Your task to perform on an android device: Search for the best gaming mouse on Best Buy. Image 0: 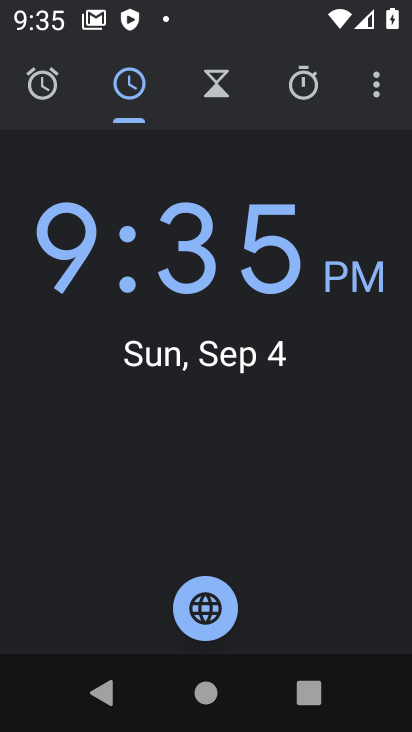
Step 0: press home button
Your task to perform on an android device: Search for the best gaming mouse on Best Buy. Image 1: 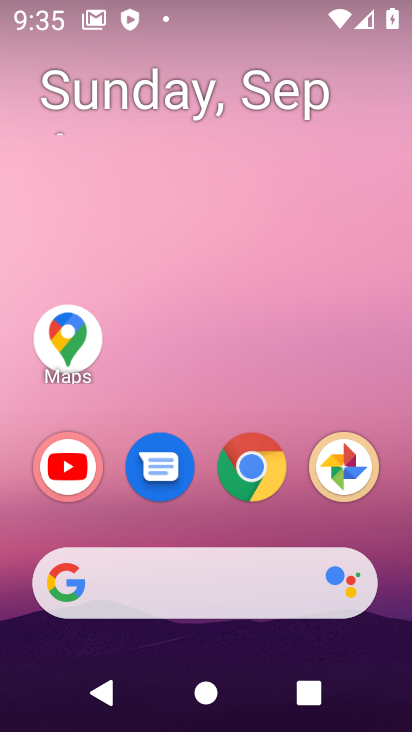
Step 1: click (252, 442)
Your task to perform on an android device: Search for the best gaming mouse on Best Buy. Image 2: 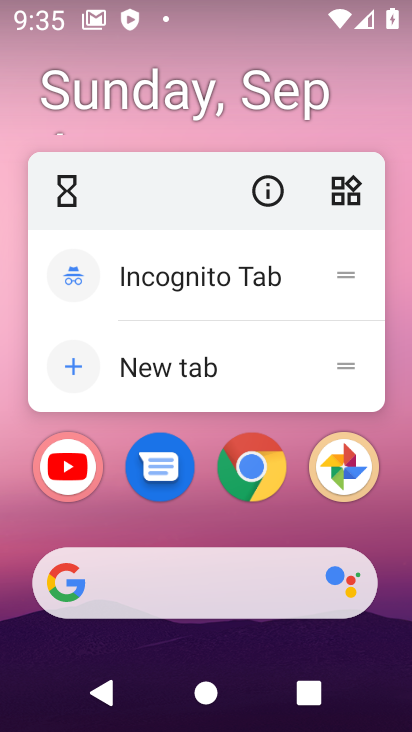
Step 2: click (256, 441)
Your task to perform on an android device: Search for the best gaming mouse on Best Buy. Image 3: 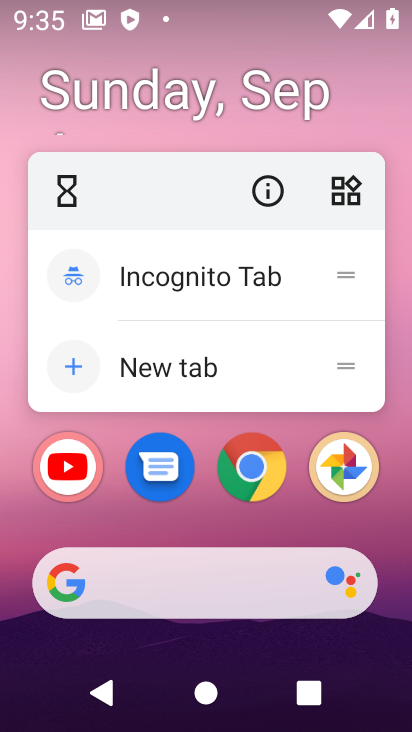
Step 3: click (240, 478)
Your task to perform on an android device: Search for the best gaming mouse on Best Buy. Image 4: 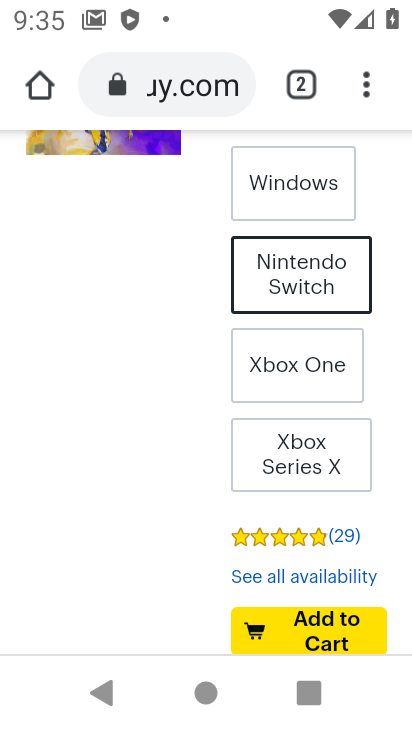
Step 4: click (161, 87)
Your task to perform on an android device: Search for the best gaming mouse on Best Buy. Image 5: 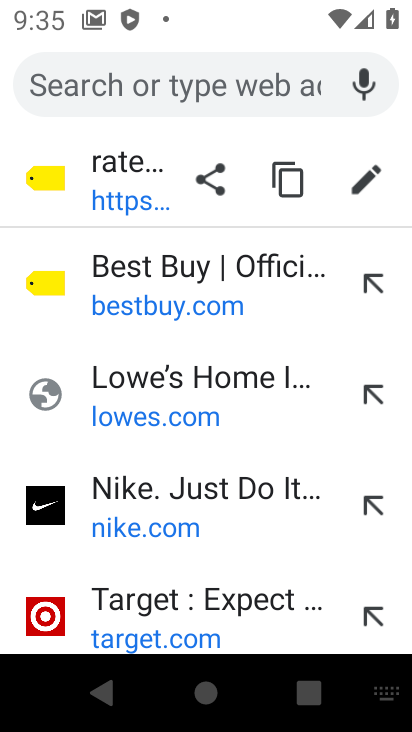
Step 5: type "best buy"
Your task to perform on an android device: Search for the best gaming mouse on Best Buy. Image 6: 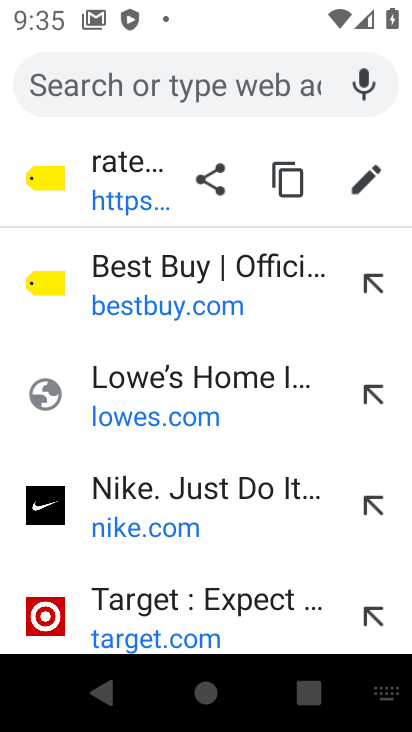
Step 6: click (189, 306)
Your task to perform on an android device: Search for the best gaming mouse on Best Buy. Image 7: 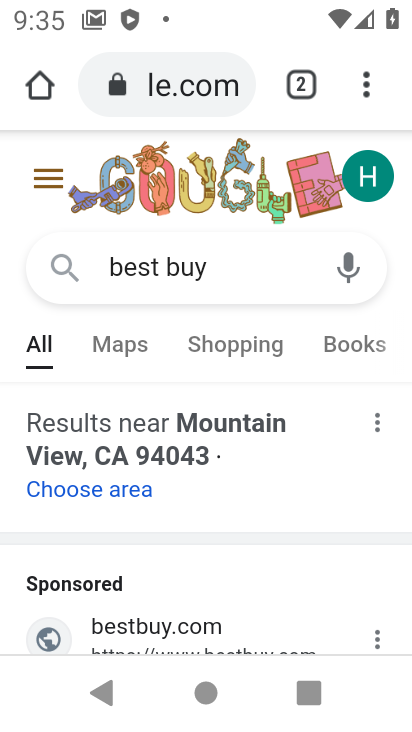
Step 7: drag from (240, 376) to (217, 143)
Your task to perform on an android device: Search for the best gaming mouse on Best Buy. Image 8: 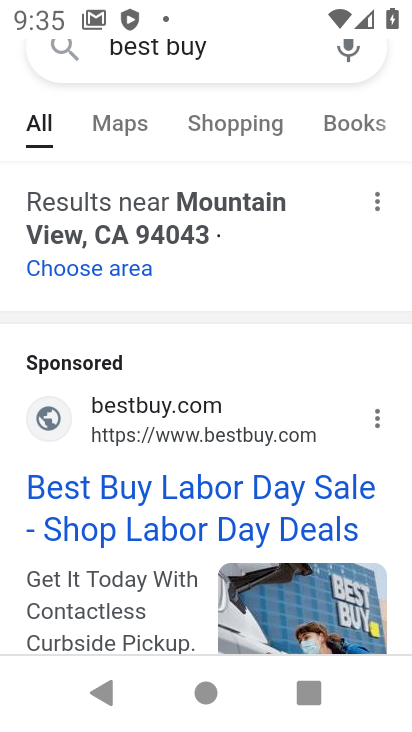
Step 8: drag from (411, 550) to (400, 243)
Your task to perform on an android device: Search for the best gaming mouse on Best Buy. Image 9: 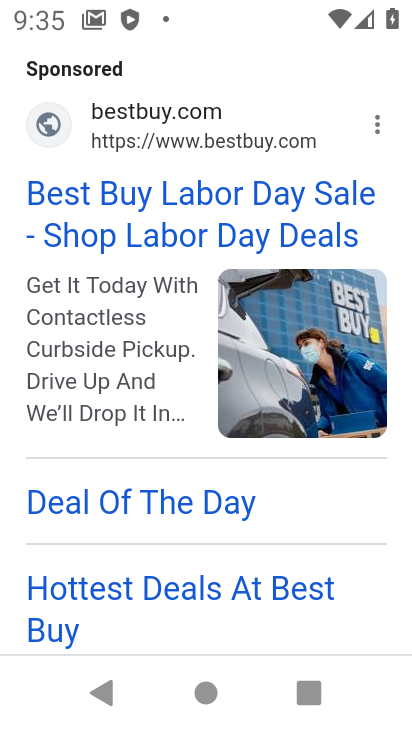
Step 9: drag from (352, 555) to (344, 90)
Your task to perform on an android device: Search for the best gaming mouse on Best Buy. Image 10: 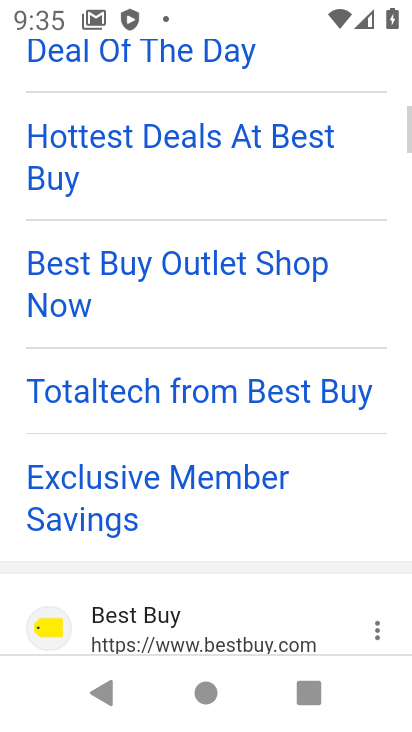
Step 10: drag from (378, 572) to (344, 177)
Your task to perform on an android device: Search for the best gaming mouse on Best Buy. Image 11: 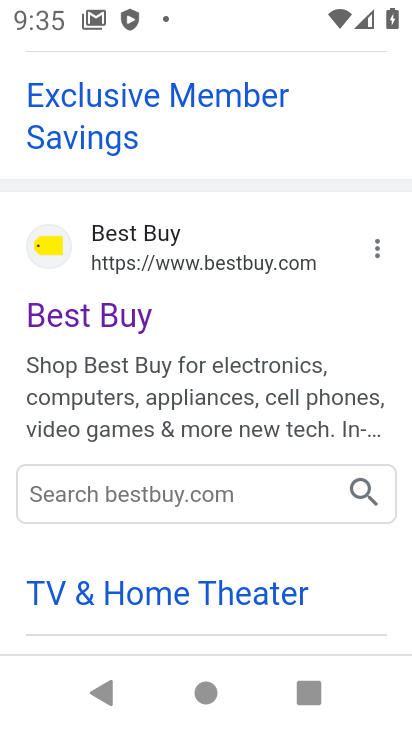
Step 11: click (87, 320)
Your task to perform on an android device: Search for the best gaming mouse on Best Buy. Image 12: 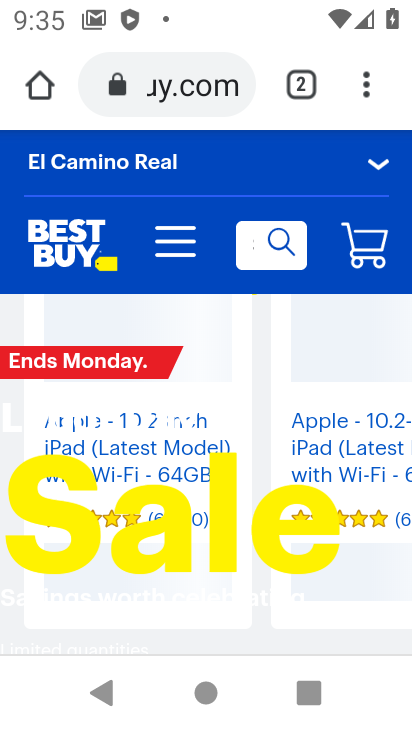
Step 12: click (281, 239)
Your task to perform on an android device: Search for the best gaming mouse on Best Buy. Image 13: 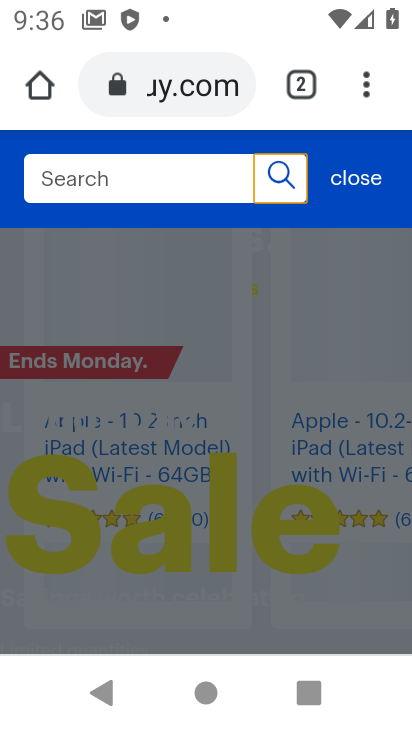
Step 13: click (57, 182)
Your task to perform on an android device: Search for the best gaming mouse on Best Buy. Image 14: 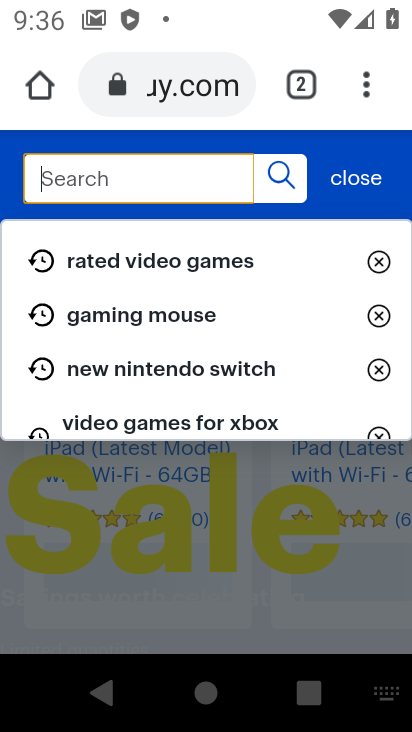
Step 14: type "gaming mouse"
Your task to perform on an android device: Search for the best gaming mouse on Best Buy. Image 15: 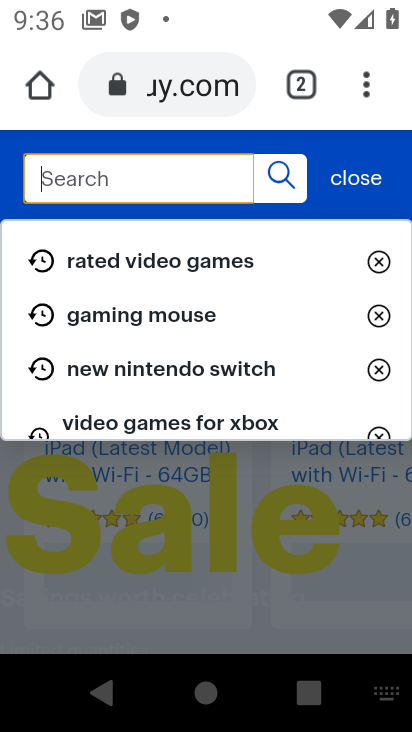
Step 15: click (207, 312)
Your task to perform on an android device: Search for the best gaming mouse on Best Buy. Image 16: 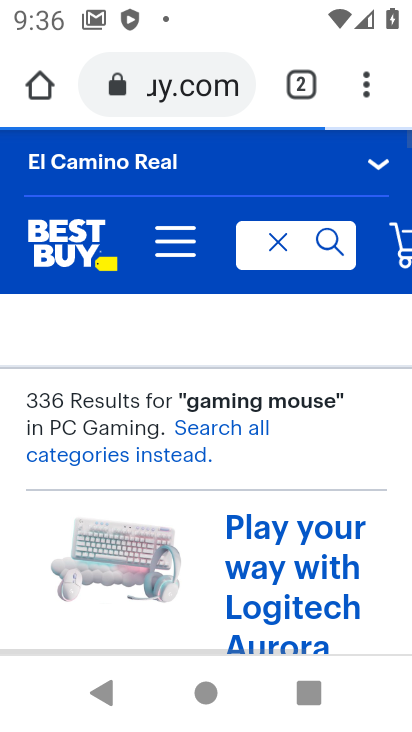
Step 16: drag from (387, 556) to (312, 228)
Your task to perform on an android device: Search for the best gaming mouse on Best Buy. Image 17: 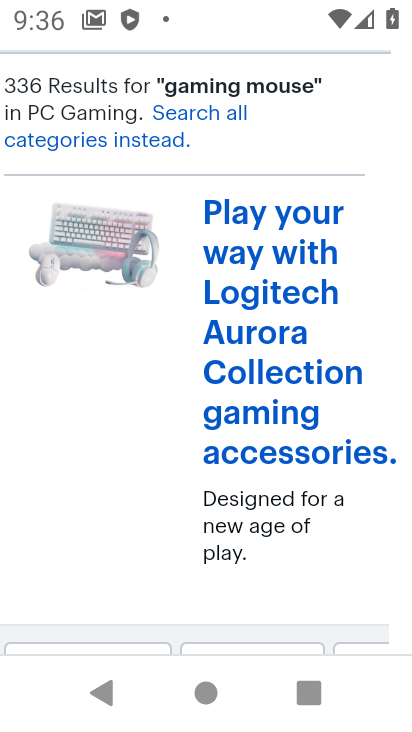
Step 17: drag from (341, 561) to (295, 219)
Your task to perform on an android device: Search for the best gaming mouse on Best Buy. Image 18: 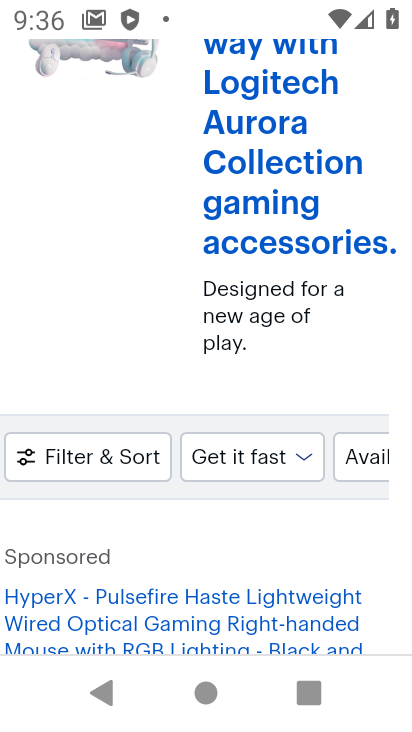
Step 18: click (64, 452)
Your task to perform on an android device: Search for the best gaming mouse on Best Buy. Image 19: 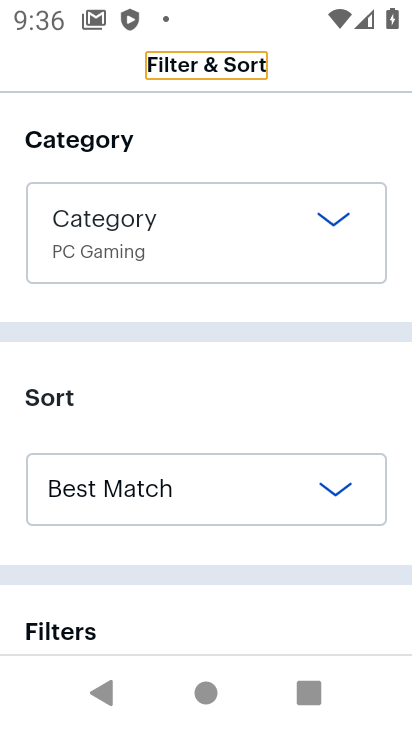
Step 19: drag from (247, 532) to (250, 247)
Your task to perform on an android device: Search for the best gaming mouse on Best Buy. Image 20: 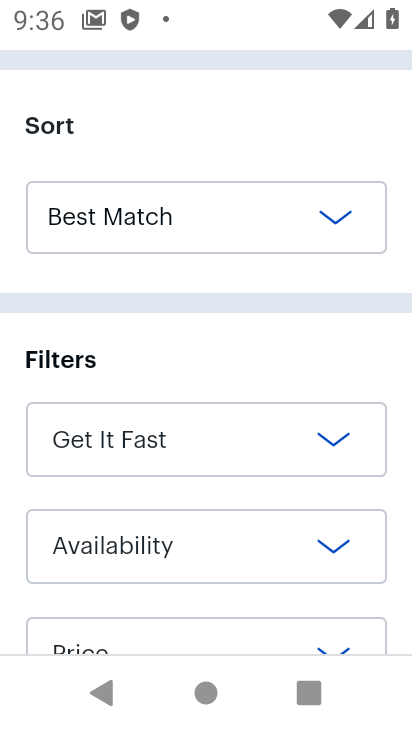
Step 20: drag from (229, 527) to (210, 260)
Your task to perform on an android device: Search for the best gaming mouse on Best Buy. Image 21: 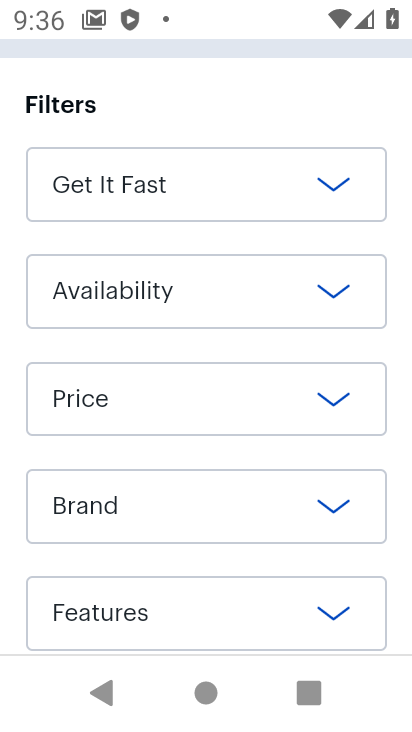
Step 21: click (319, 496)
Your task to perform on an android device: Search for the best gaming mouse on Best Buy. Image 22: 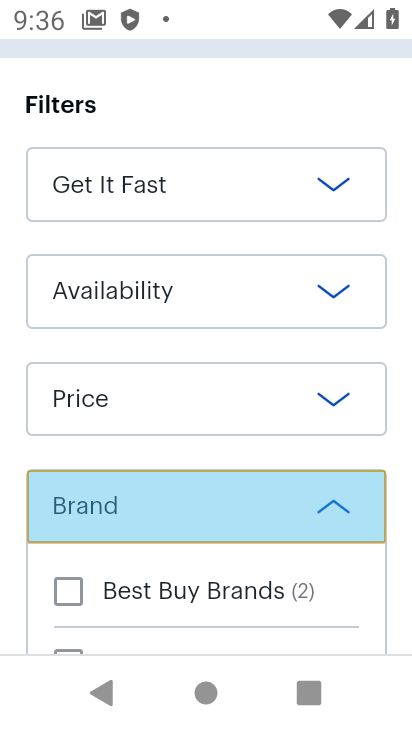
Step 22: click (64, 593)
Your task to perform on an android device: Search for the best gaming mouse on Best Buy. Image 23: 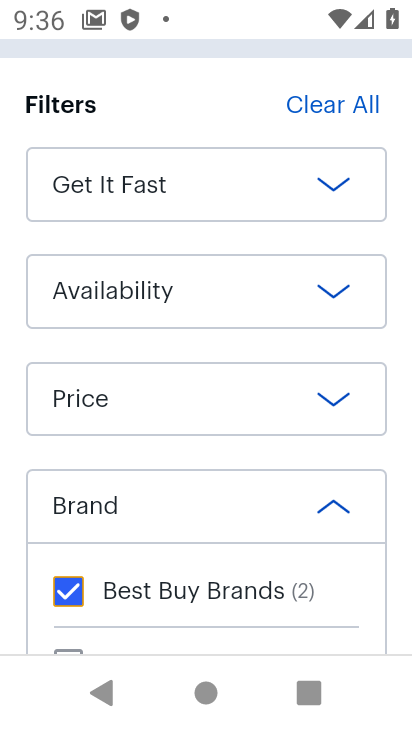
Step 23: drag from (369, 569) to (394, 185)
Your task to perform on an android device: Search for the best gaming mouse on Best Buy. Image 24: 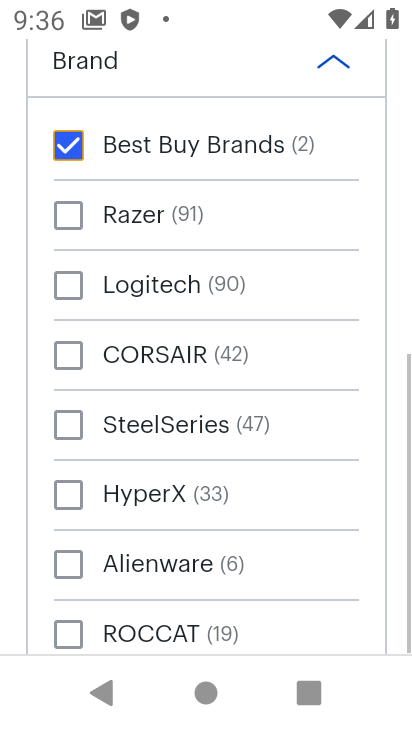
Step 24: drag from (369, 567) to (392, 158)
Your task to perform on an android device: Search for the best gaming mouse on Best Buy. Image 25: 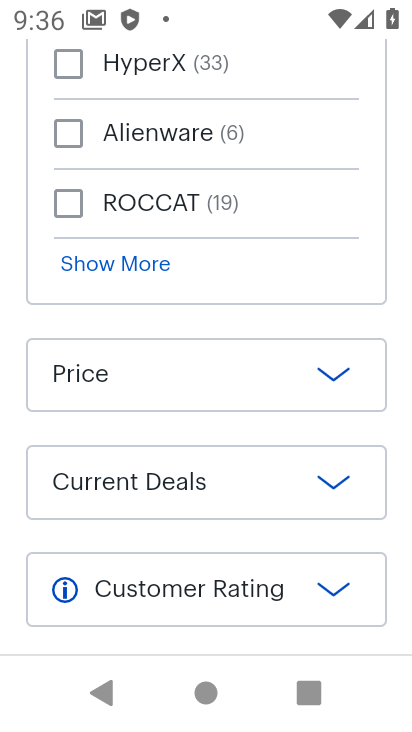
Step 25: click (326, 598)
Your task to perform on an android device: Search for the best gaming mouse on Best Buy. Image 26: 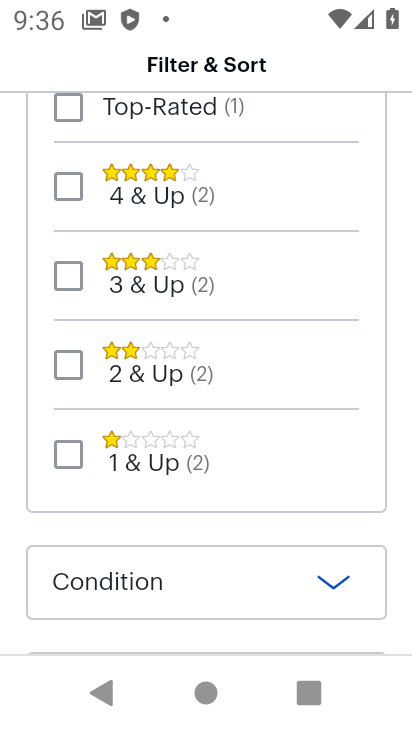
Step 26: click (68, 101)
Your task to perform on an android device: Search for the best gaming mouse on Best Buy. Image 27: 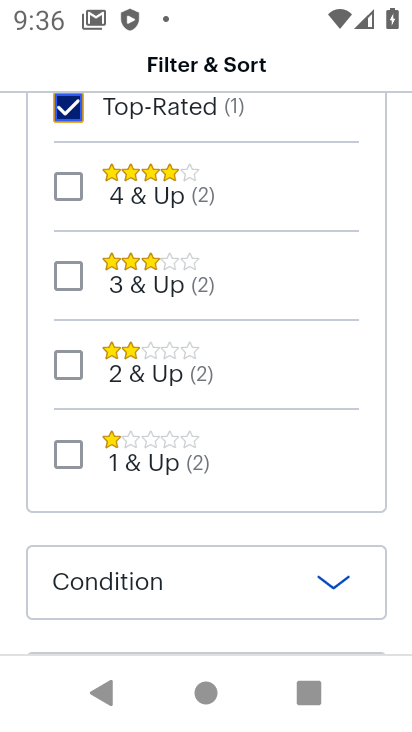
Step 27: drag from (355, 594) to (394, 100)
Your task to perform on an android device: Search for the best gaming mouse on Best Buy. Image 28: 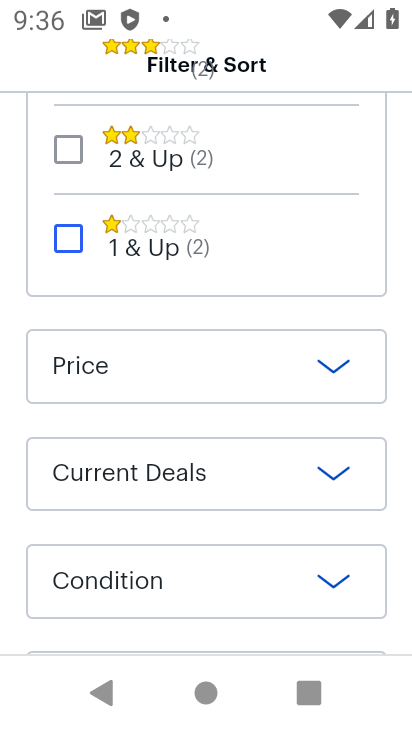
Step 28: drag from (387, 573) to (411, 296)
Your task to perform on an android device: Search for the best gaming mouse on Best Buy. Image 29: 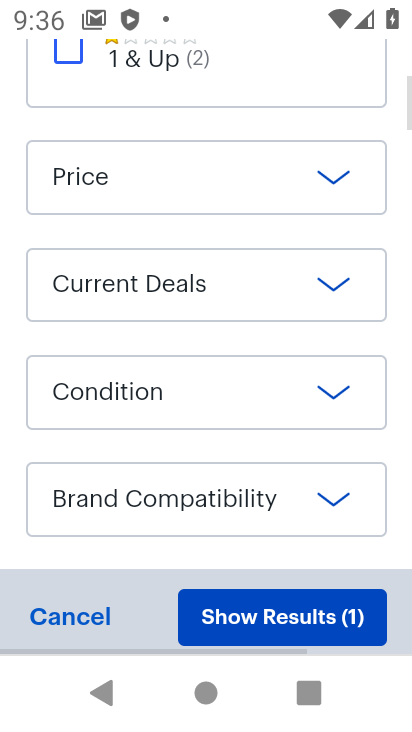
Step 29: click (215, 612)
Your task to perform on an android device: Search for the best gaming mouse on Best Buy. Image 30: 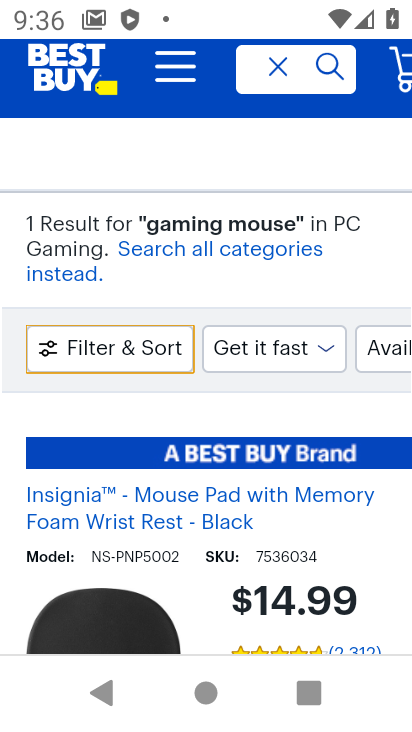
Step 30: drag from (354, 571) to (394, 322)
Your task to perform on an android device: Search for the best gaming mouse on Best Buy. Image 31: 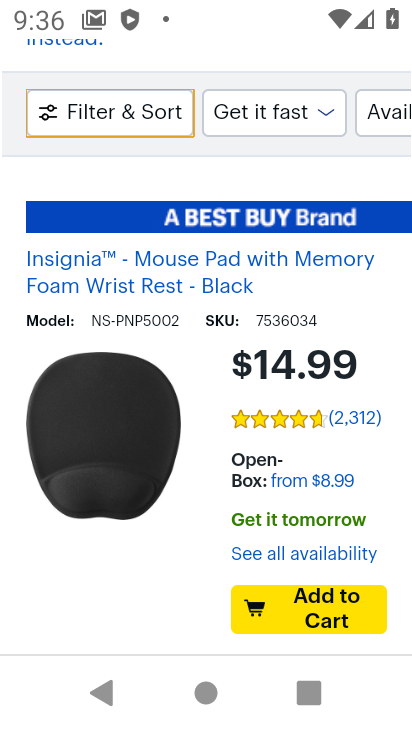
Step 31: drag from (148, 527) to (145, 237)
Your task to perform on an android device: Search for the best gaming mouse on Best Buy. Image 32: 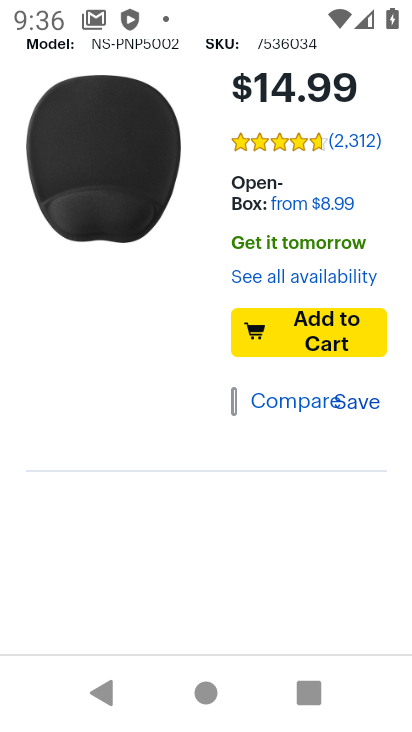
Step 32: drag from (188, 607) to (187, 286)
Your task to perform on an android device: Search for the best gaming mouse on Best Buy. Image 33: 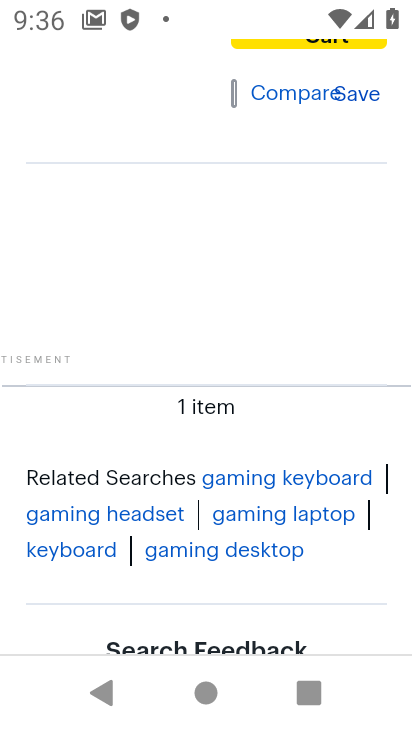
Step 33: drag from (299, 404) to (306, 222)
Your task to perform on an android device: Search for the best gaming mouse on Best Buy. Image 34: 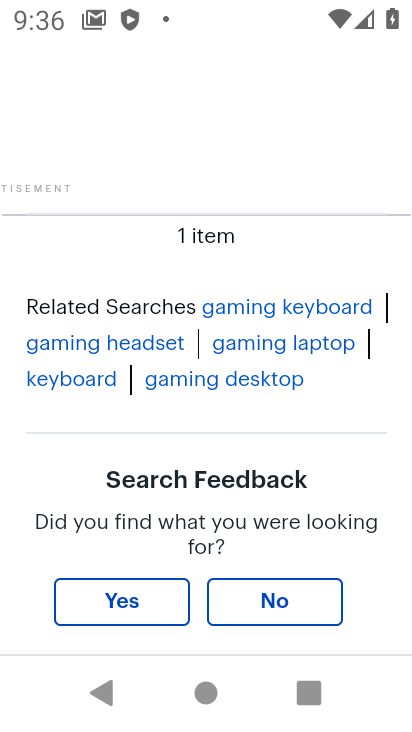
Step 34: drag from (383, 582) to (374, 209)
Your task to perform on an android device: Search for the best gaming mouse on Best Buy. Image 35: 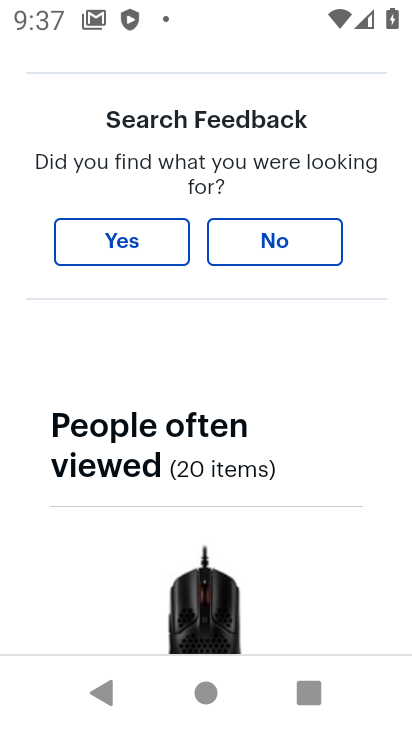
Step 35: drag from (346, 590) to (374, 113)
Your task to perform on an android device: Search for the best gaming mouse on Best Buy. Image 36: 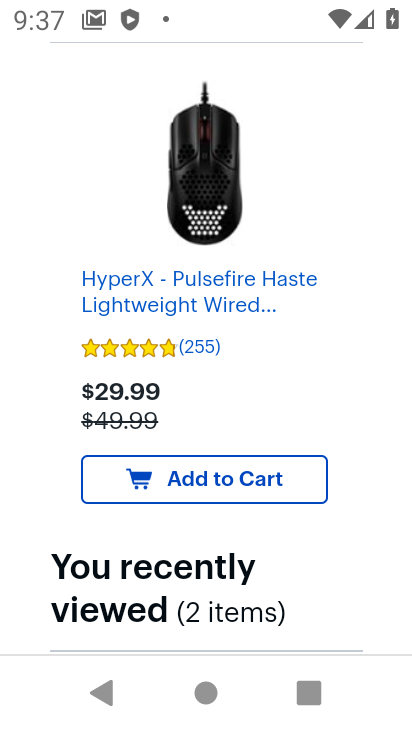
Step 36: drag from (289, 471) to (391, 163)
Your task to perform on an android device: Search for the best gaming mouse on Best Buy. Image 37: 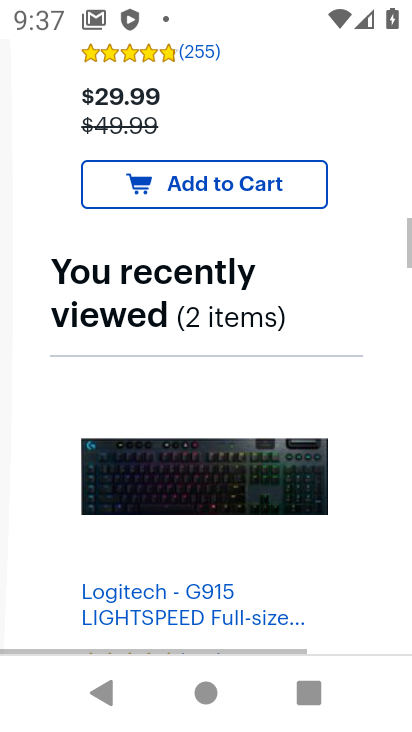
Step 37: drag from (374, 489) to (373, 109)
Your task to perform on an android device: Search for the best gaming mouse on Best Buy. Image 38: 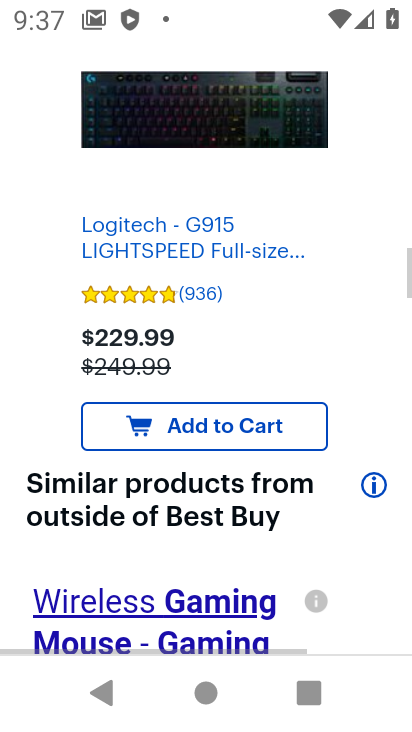
Step 38: drag from (294, 385) to (371, 97)
Your task to perform on an android device: Search for the best gaming mouse on Best Buy. Image 39: 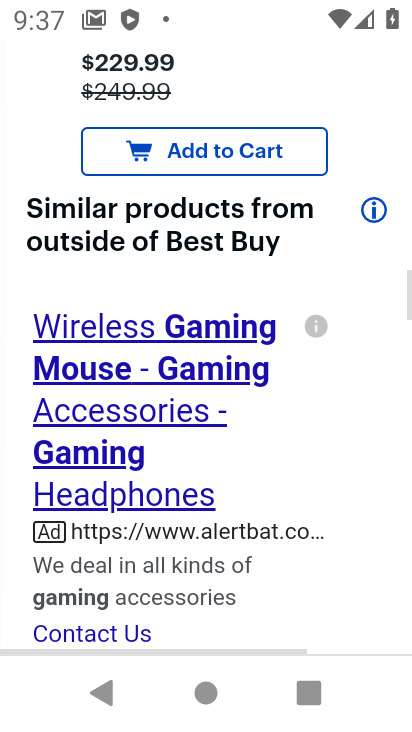
Step 39: drag from (302, 630) to (335, 208)
Your task to perform on an android device: Search for the best gaming mouse on Best Buy. Image 40: 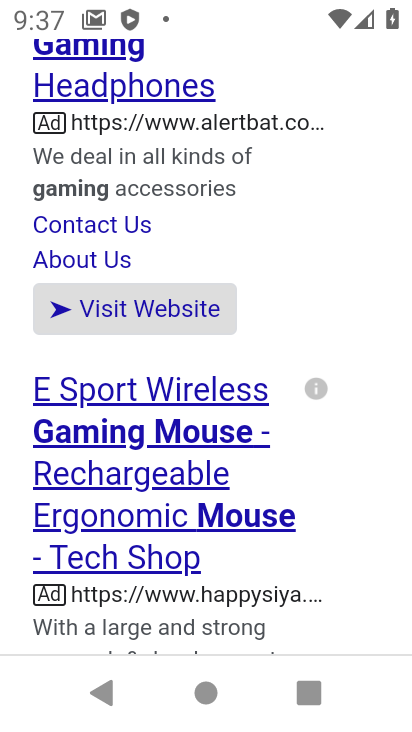
Step 40: drag from (300, 555) to (315, 35)
Your task to perform on an android device: Search for the best gaming mouse on Best Buy. Image 41: 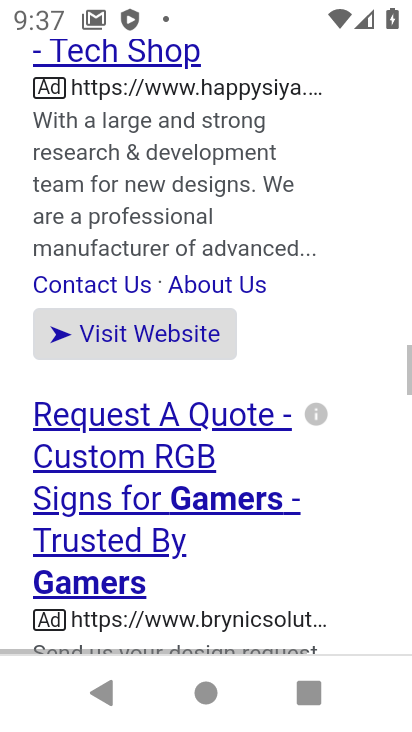
Step 41: drag from (329, 526) to (314, 93)
Your task to perform on an android device: Search for the best gaming mouse on Best Buy. Image 42: 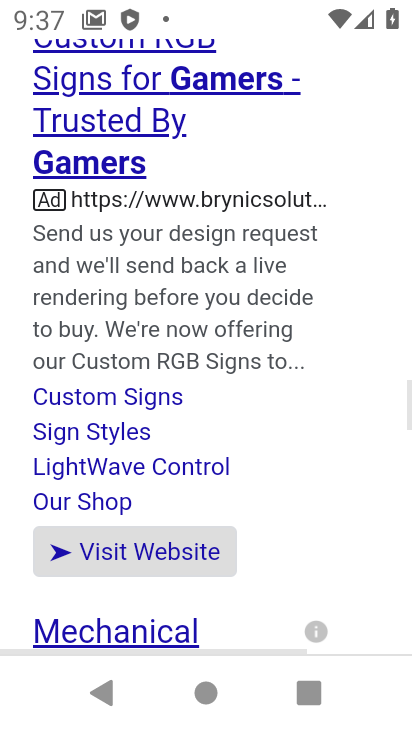
Step 42: drag from (299, 425) to (314, 105)
Your task to perform on an android device: Search for the best gaming mouse on Best Buy. Image 43: 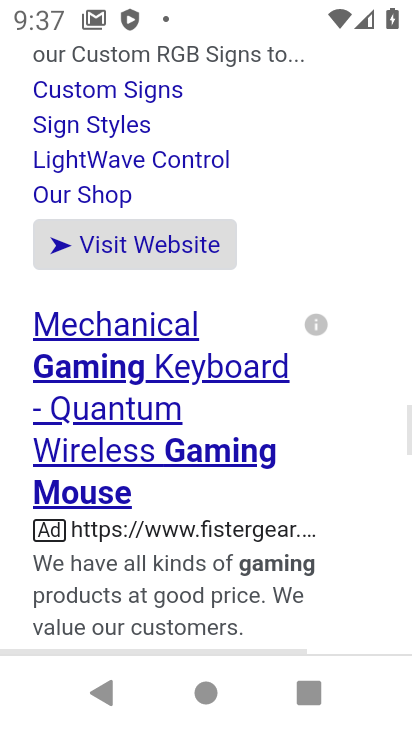
Step 43: drag from (329, 497) to (317, 104)
Your task to perform on an android device: Search for the best gaming mouse on Best Buy. Image 44: 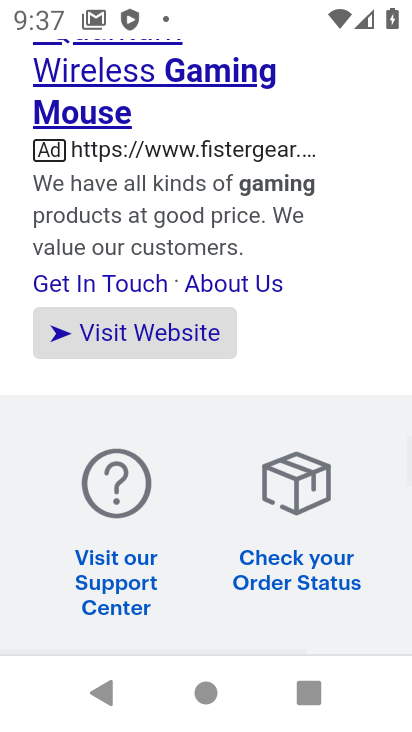
Step 44: drag from (391, 450) to (392, 150)
Your task to perform on an android device: Search for the best gaming mouse on Best Buy. Image 45: 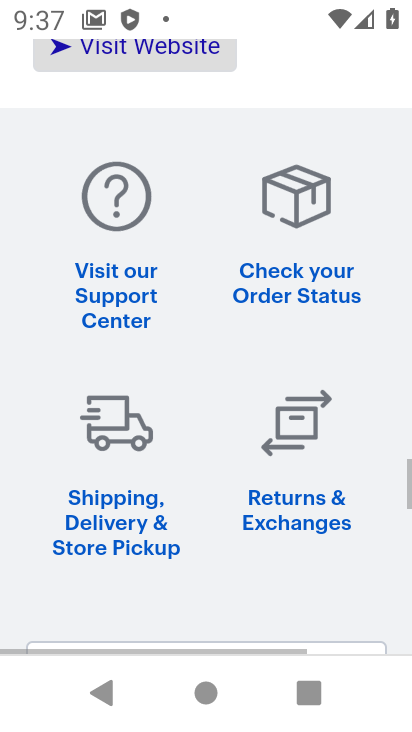
Step 45: drag from (275, 546) to (367, 171)
Your task to perform on an android device: Search for the best gaming mouse on Best Buy. Image 46: 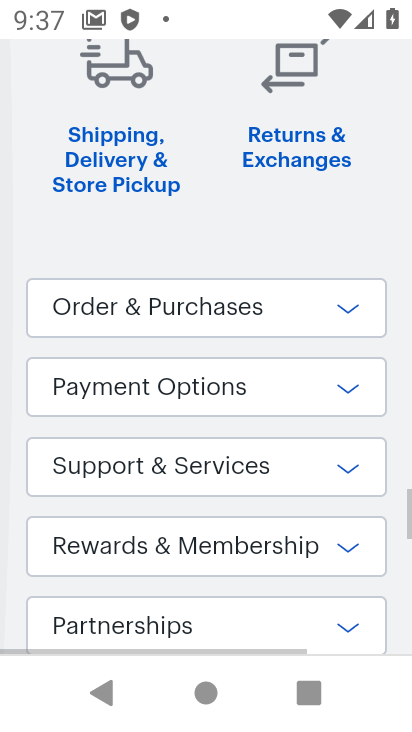
Step 46: drag from (357, 496) to (353, 132)
Your task to perform on an android device: Search for the best gaming mouse on Best Buy. Image 47: 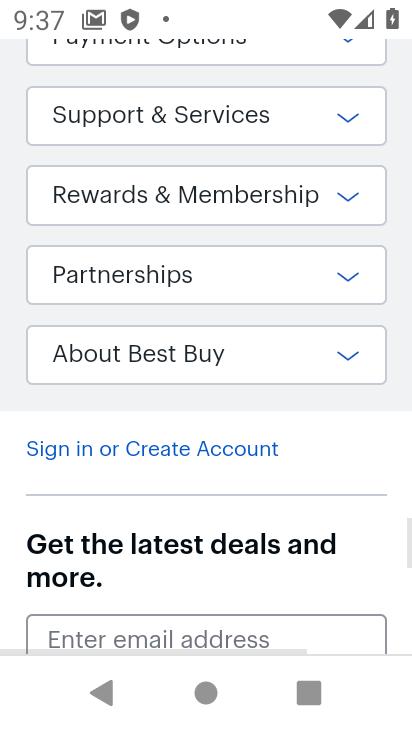
Step 47: drag from (346, 132) to (409, 353)
Your task to perform on an android device: Search for the best gaming mouse on Best Buy. Image 48: 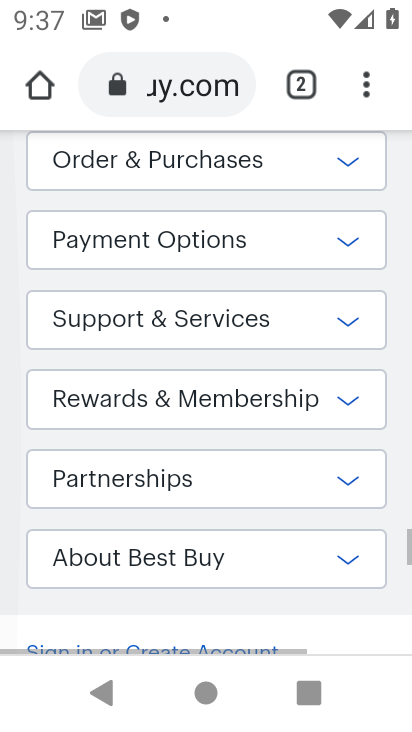
Step 48: drag from (356, 533) to (367, 134)
Your task to perform on an android device: Search for the best gaming mouse on Best Buy. Image 49: 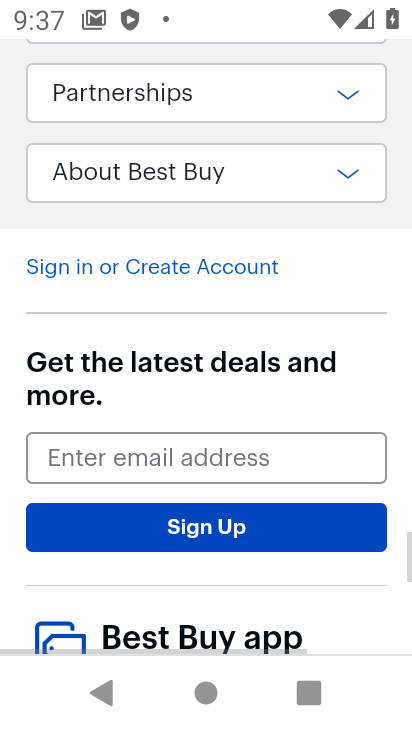
Step 49: drag from (365, 472) to (371, 164)
Your task to perform on an android device: Search for the best gaming mouse on Best Buy. Image 50: 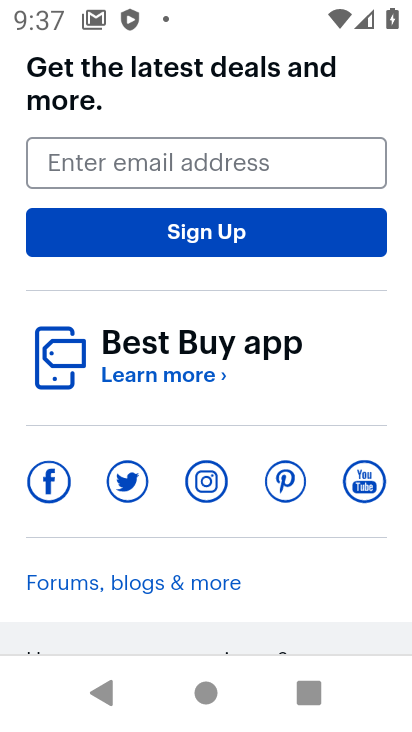
Step 50: drag from (396, 144) to (370, 684)
Your task to perform on an android device: Search for the best gaming mouse on Best Buy. Image 51: 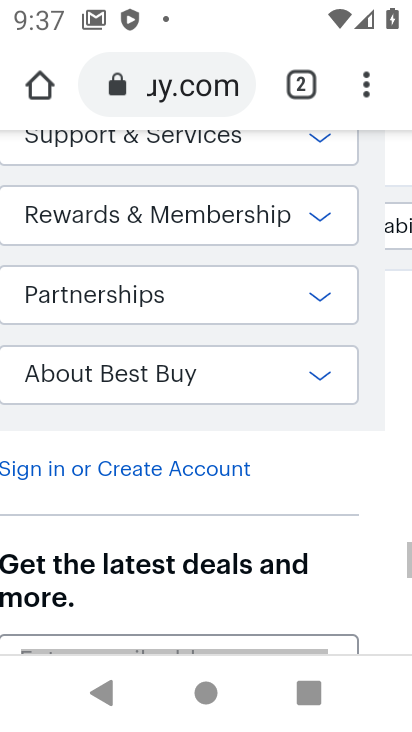
Step 51: drag from (385, 250) to (384, 725)
Your task to perform on an android device: Search for the best gaming mouse on Best Buy. Image 52: 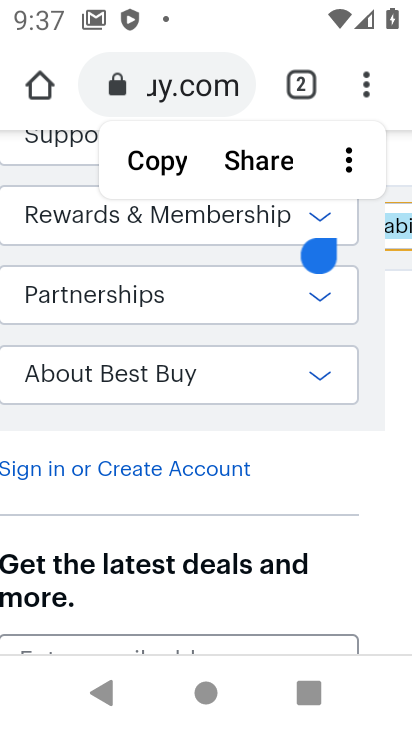
Step 52: drag from (412, 344) to (411, 671)
Your task to perform on an android device: Search for the best gaming mouse on Best Buy. Image 53: 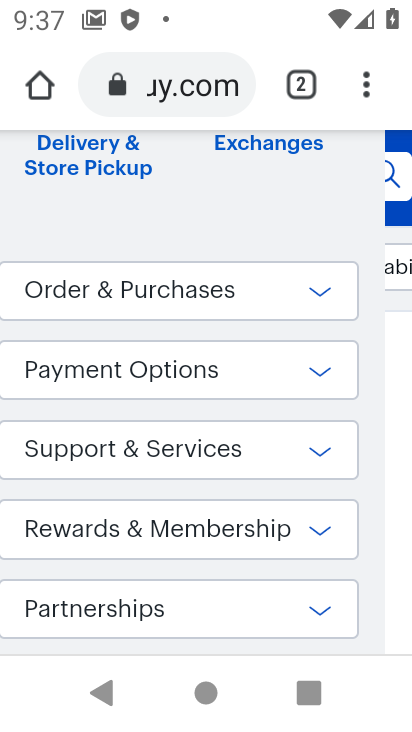
Step 53: drag from (367, 216) to (369, 726)
Your task to perform on an android device: Search for the best gaming mouse on Best Buy. Image 54: 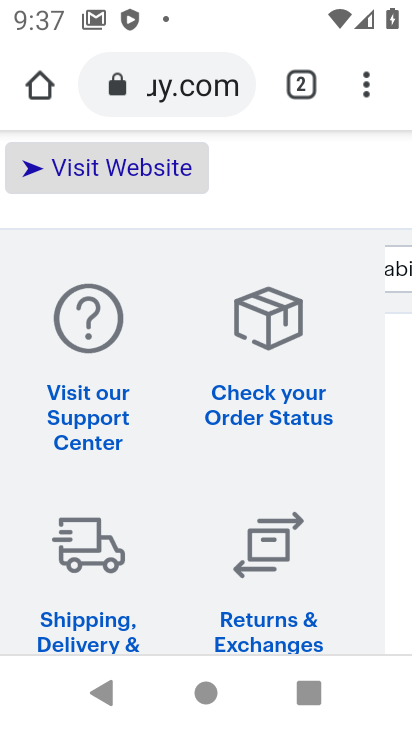
Step 54: drag from (364, 309) to (391, 697)
Your task to perform on an android device: Search for the best gaming mouse on Best Buy. Image 55: 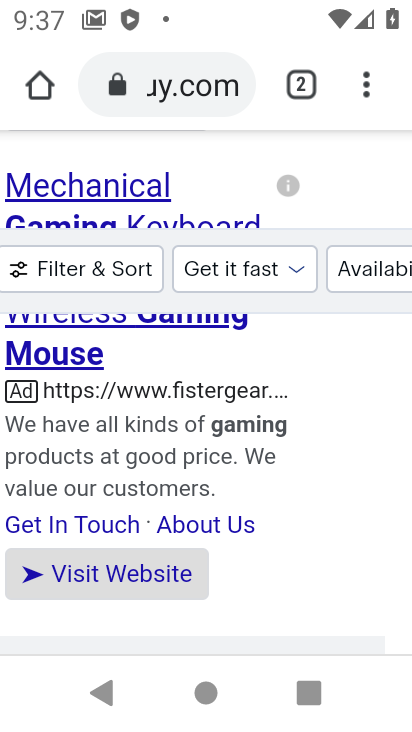
Step 55: drag from (406, 325) to (351, 701)
Your task to perform on an android device: Search for the best gaming mouse on Best Buy. Image 56: 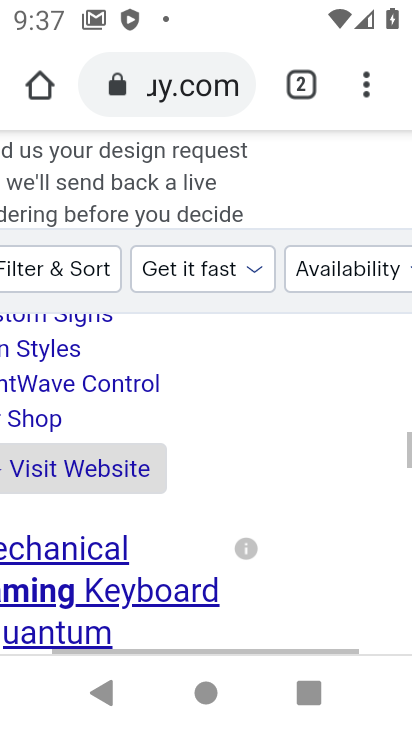
Step 56: drag from (327, 374) to (338, 725)
Your task to perform on an android device: Search for the best gaming mouse on Best Buy. Image 57: 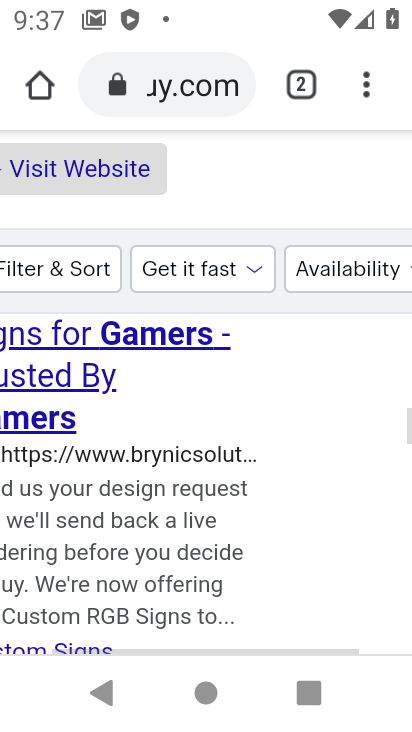
Step 57: drag from (344, 403) to (332, 731)
Your task to perform on an android device: Search for the best gaming mouse on Best Buy. Image 58: 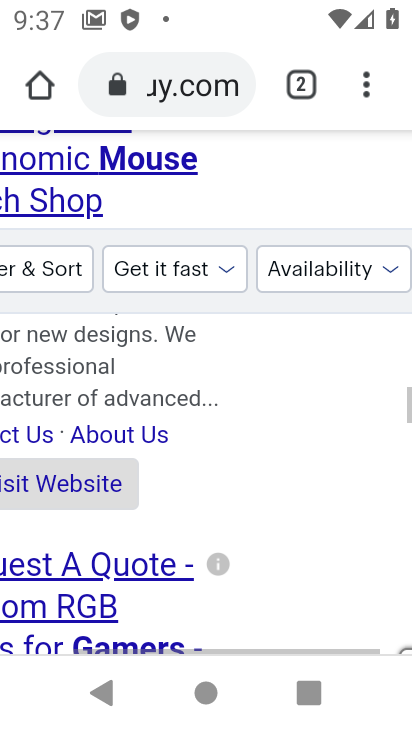
Step 58: drag from (345, 421) to (387, 680)
Your task to perform on an android device: Search for the best gaming mouse on Best Buy. Image 59: 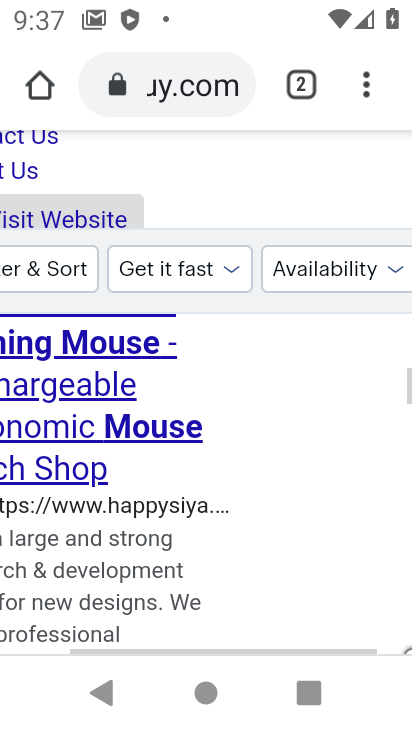
Step 59: drag from (368, 496) to (407, 644)
Your task to perform on an android device: Search for the best gaming mouse on Best Buy. Image 60: 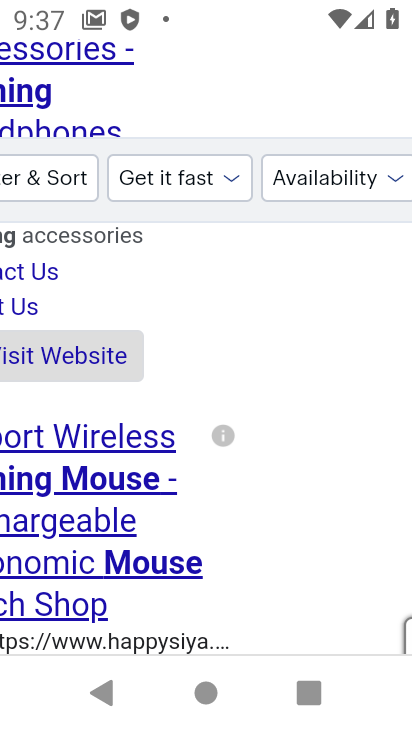
Step 60: drag from (355, 338) to (408, 724)
Your task to perform on an android device: Search for the best gaming mouse on Best Buy. Image 61: 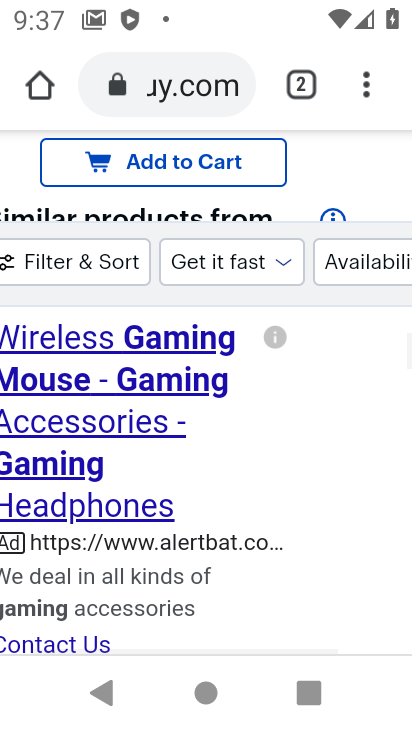
Step 61: drag from (323, 360) to (316, 718)
Your task to perform on an android device: Search for the best gaming mouse on Best Buy. Image 62: 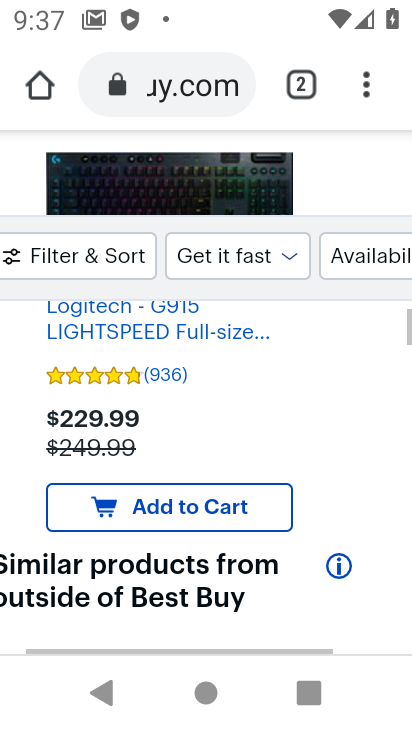
Step 62: drag from (329, 346) to (327, 728)
Your task to perform on an android device: Search for the best gaming mouse on Best Buy. Image 63: 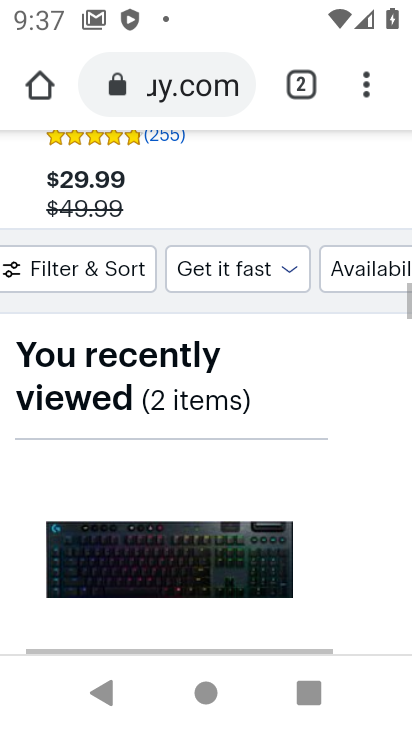
Step 63: drag from (360, 392) to (400, 555)
Your task to perform on an android device: Search for the best gaming mouse on Best Buy. Image 64: 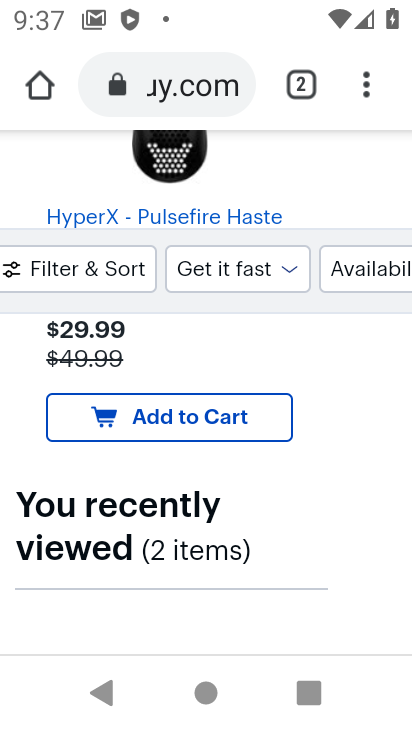
Step 64: drag from (350, 373) to (381, 730)
Your task to perform on an android device: Search for the best gaming mouse on Best Buy. Image 65: 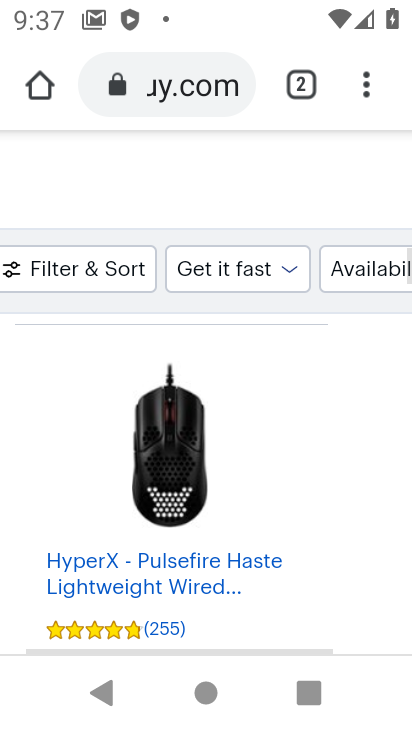
Step 65: click (182, 468)
Your task to perform on an android device: Search for the best gaming mouse on Best Buy. Image 66: 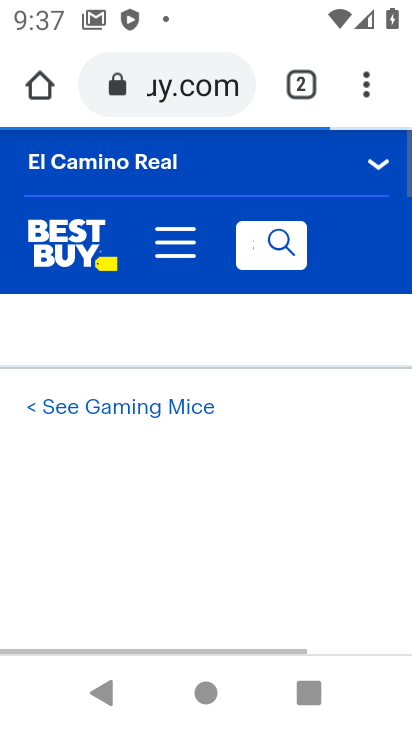
Step 66: task complete